Your task to perform on an android device: toggle sleep mode Image 0: 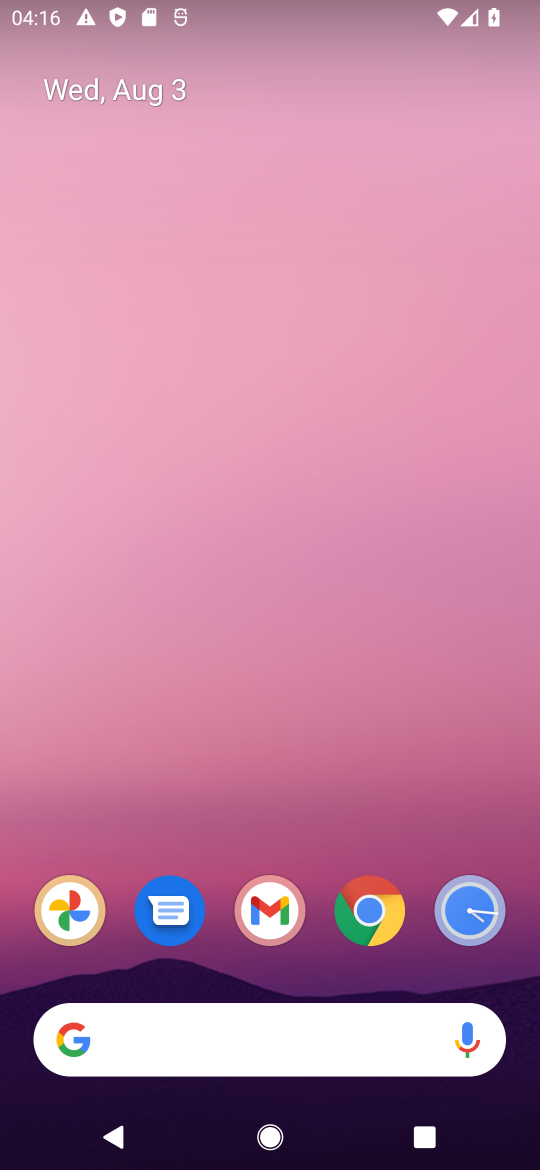
Step 0: press home button
Your task to perform on an android device: toggle sleep mode Image 1: 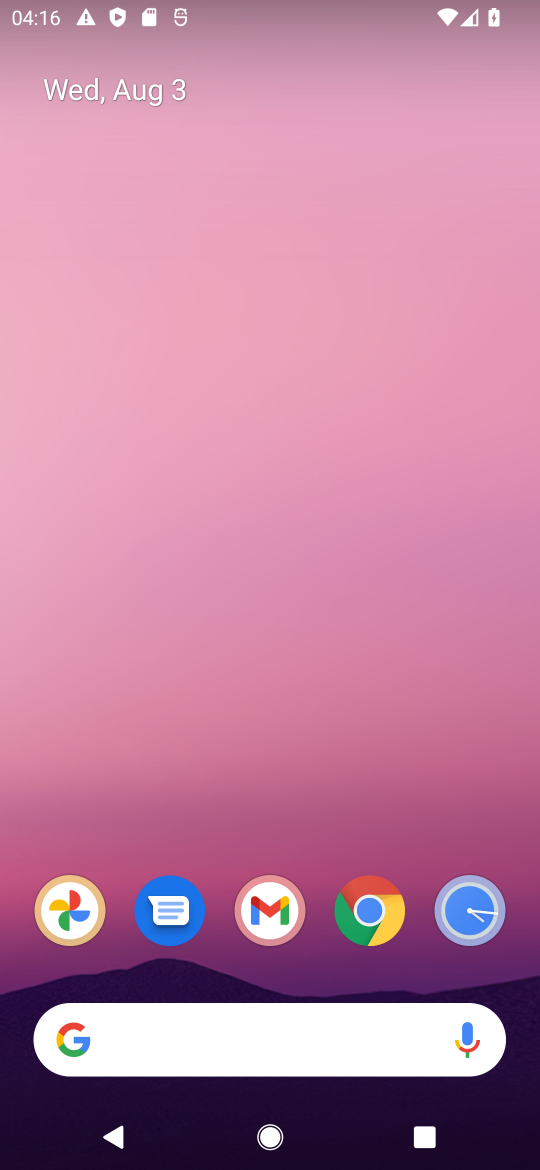
Step 1: drag from (315, 842) to (340, 20)
Your task to perform on an android device: toggle sleep mode Image 2: 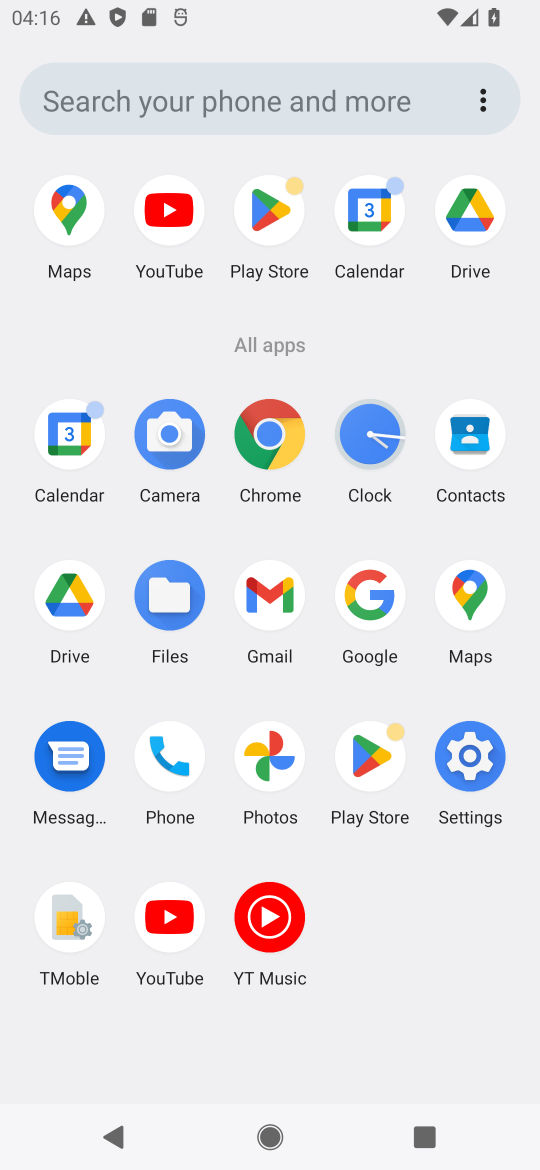
Step 2: click (468, 747)
Your task to perform on an android device: toggle sleep mode Image 3: 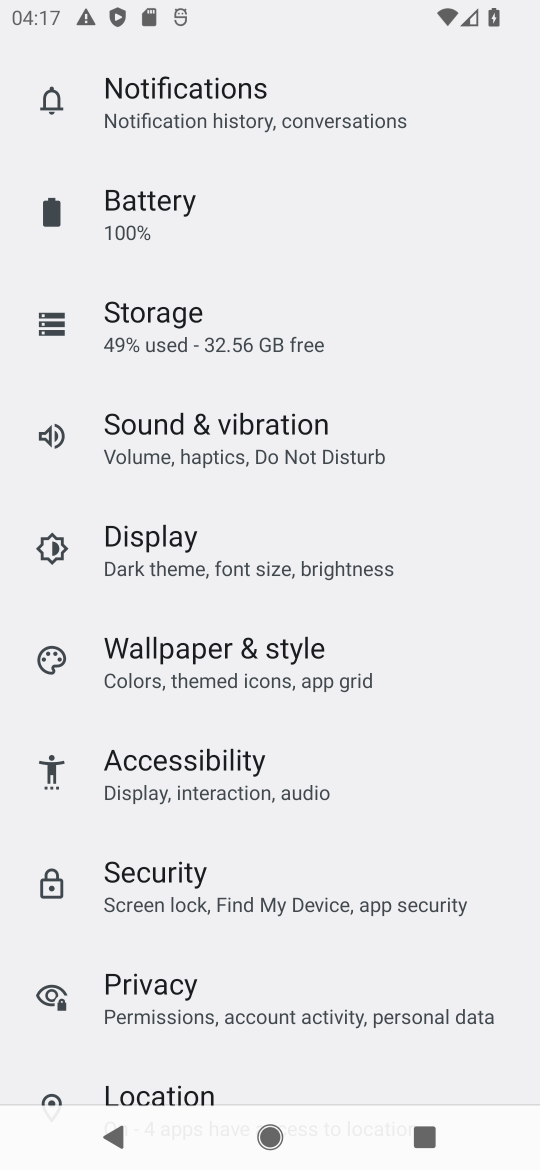
Step 3: click (218, 540)
Your task to perform on an android device: toggle sleep mode Image 4: 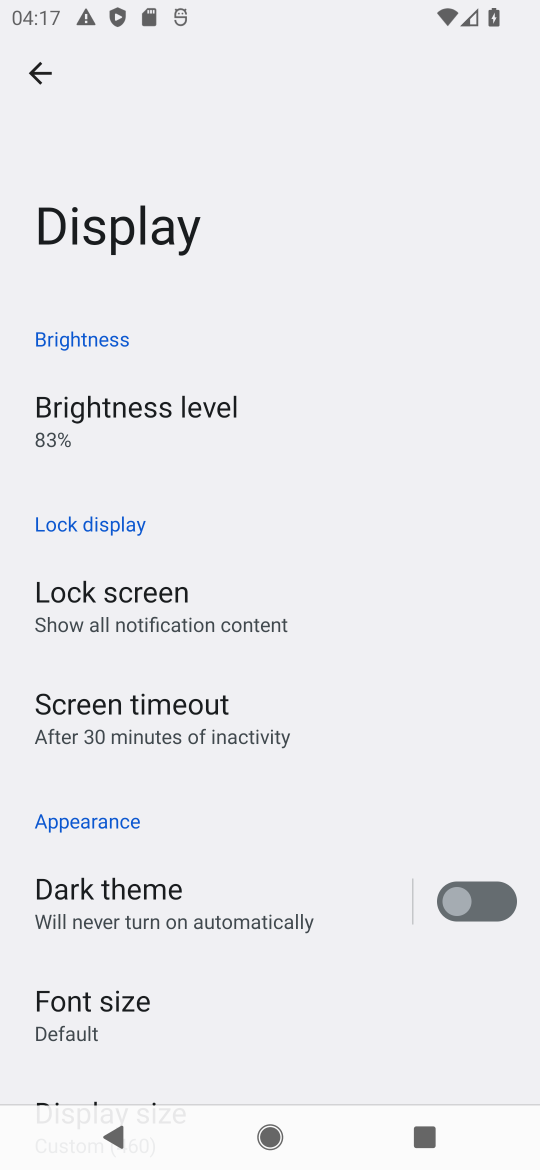
Step 4: task complete